Your task to perform on an android device: Open the calendar and show me this week's events Image 0: 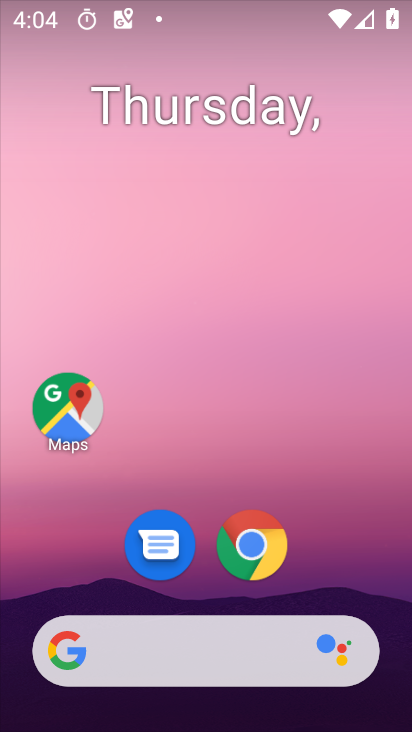
Step 0: drag from (206, 716) to (219, 73)
Your task to perform on an android device: Open the calendar and show me this week's events Image 1: 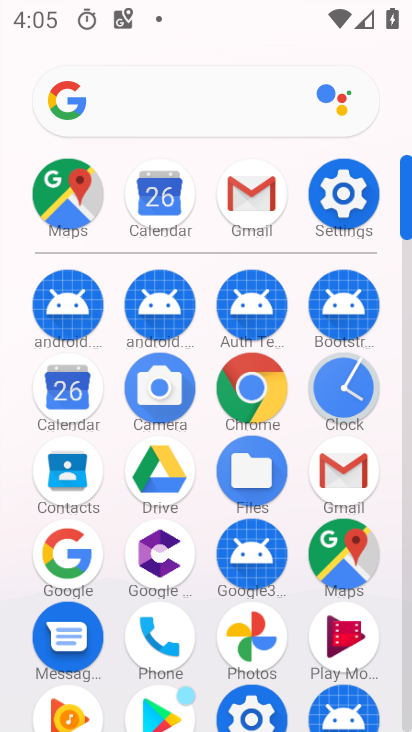
Step 1: click (65, 390)
Your task to perform on an android device: Open the calendar and show me this week's events Image 2: 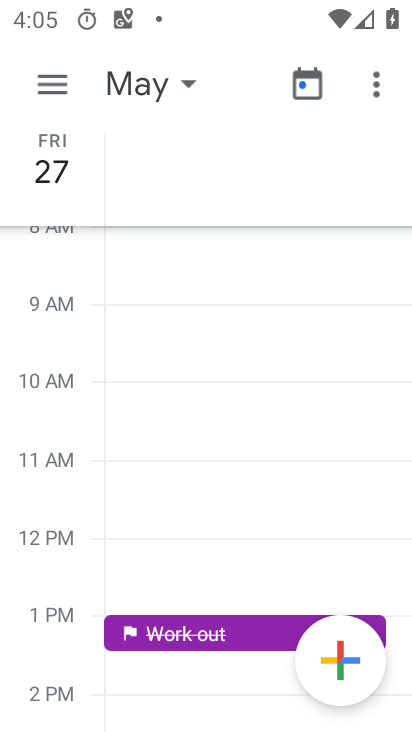
Step 2: click (146, 85)
Your task to perform on an android device: Open the calendar and show me this week's events Image 3: 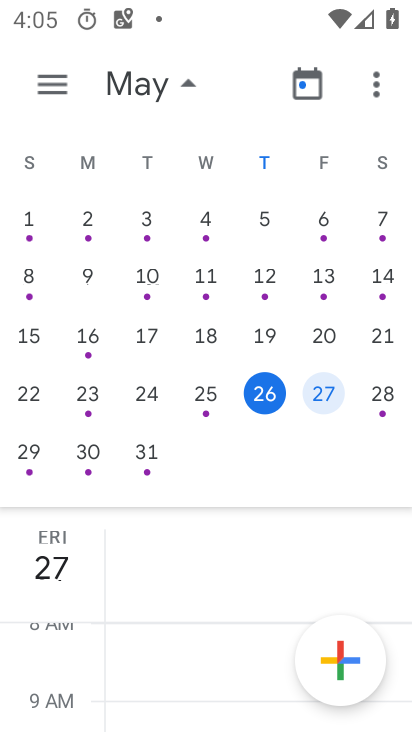
Step 3: click (39, 79)
Your task to perform on an android device: Open the calendar and show me this week's events Image 4: 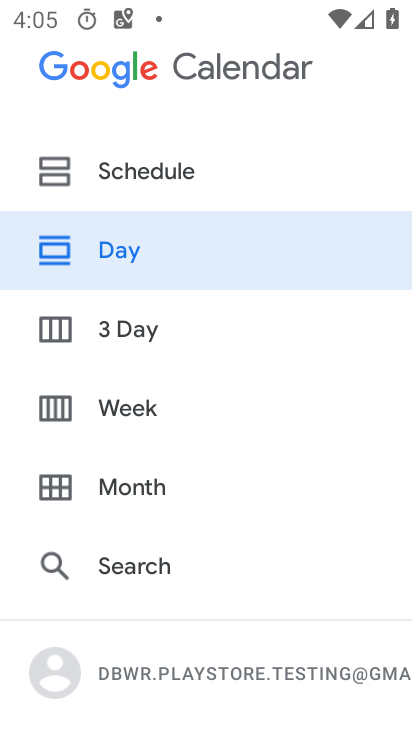
Step 4: click (112, 403)
Your task to perform on an android device: Open the calendar and show me this week's events Image 5: 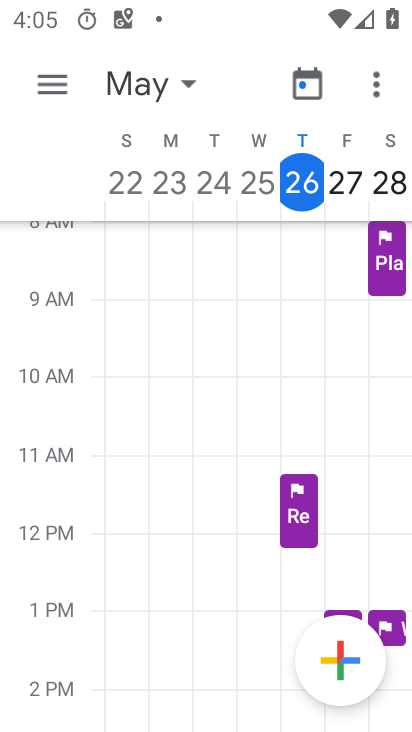
Step 5: task complete